Your task to perform on an android device: Open the phone app and click the voicemail tab. Image 0: 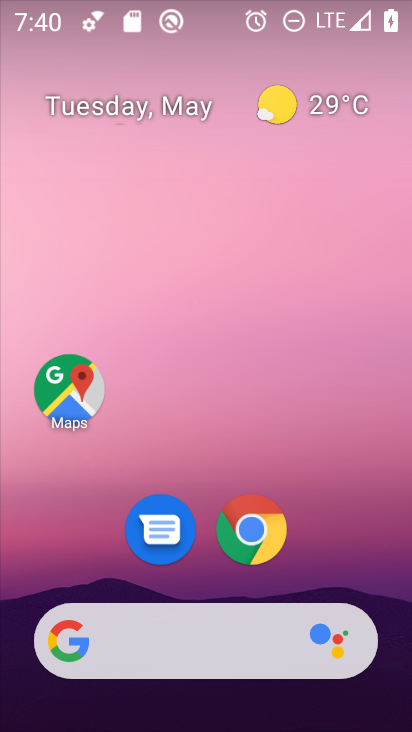
Step 0: drag from (348, 492) to (182, 0)
Your task to perform on an android device: Open the phone app and click the voicemail tab. Image 1: 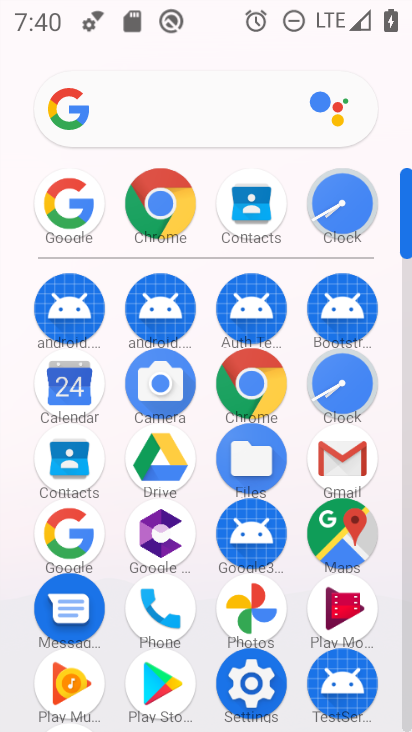
Step 1: click (151, 622)
Your task to perform on an android device: Open the phone app and click the voicemail tab. Image 2: 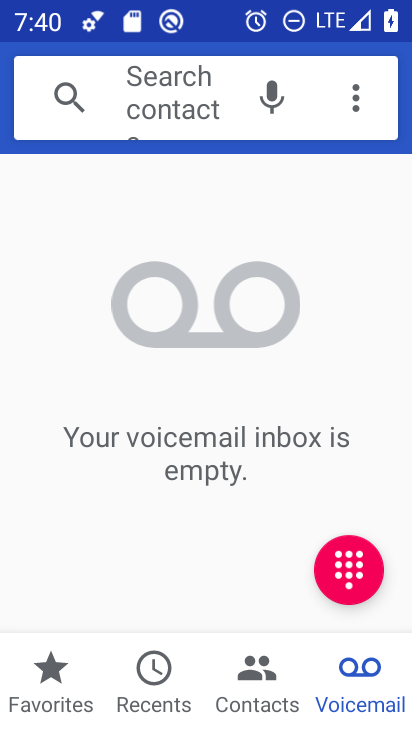
Step 2: task complete